Your task to perform on an android device: move an email to a new category in the gmail app Image 0: 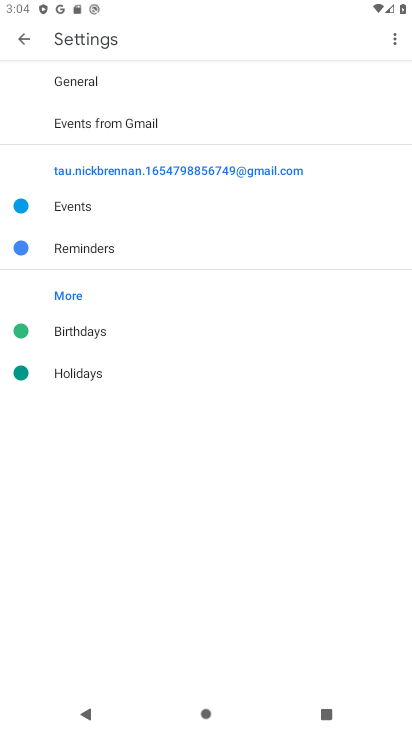
Step 0: press home button
Your task to perform on an android device: move an email to a new category in the gmail app Image 1: 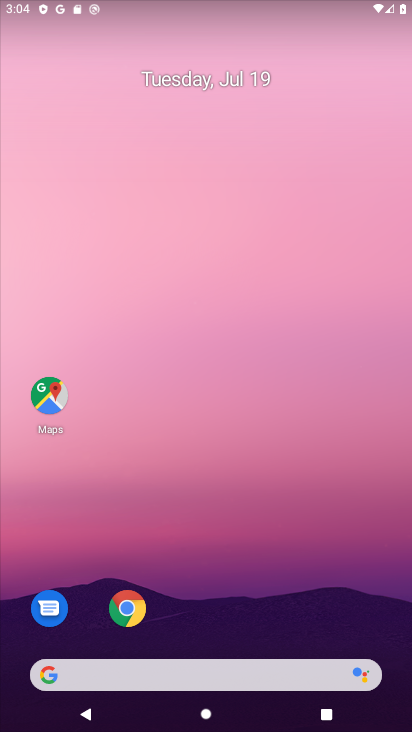
Step 1: drag from (318, 609) to (279, 119)
Your task to perform on an android device: move an email to a new category in the gmail app Image 2: 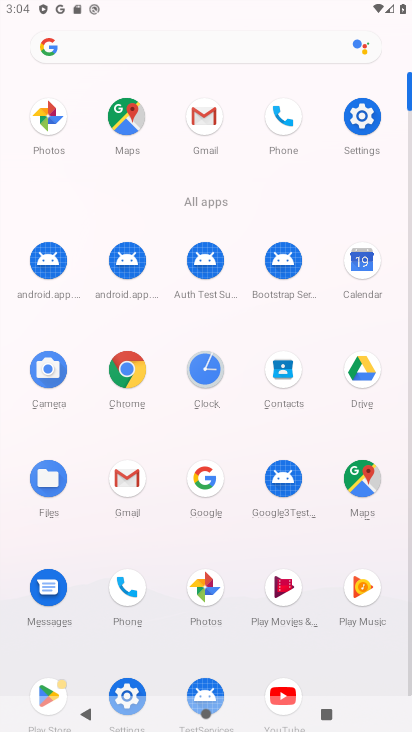
Step 2: click (207, 119)
Your task to perform on an android device: move an email to a new category in the gmail app Image 3: 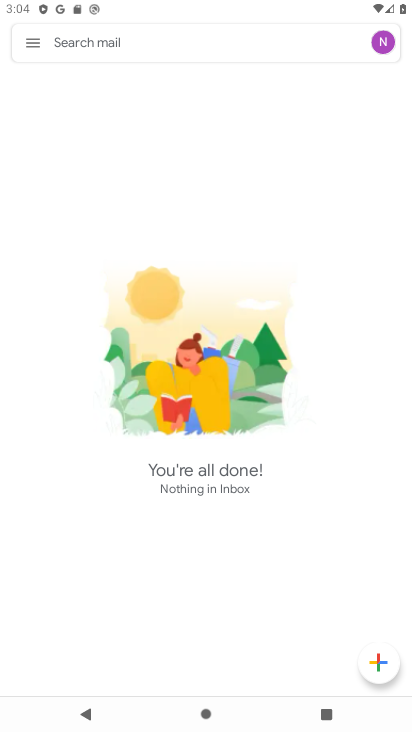
Step 3: click (21, 43)
Your task to perform on an android device: move an email to a new category in the gmail app Image 4: 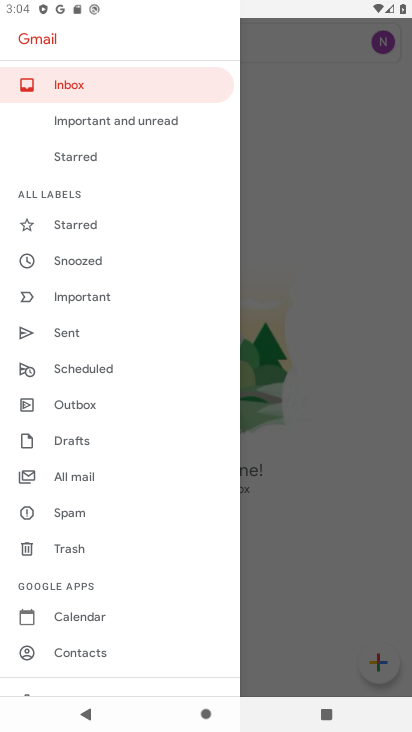
Step 4: click (133, 471)
Your task to perform on an android device: move an email to a new category in the gmail app Image 5: 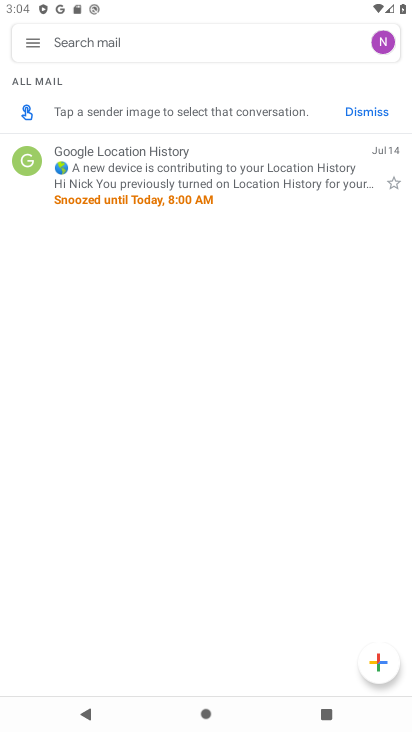
Step 5: click (219, 160)
Your task to perform on an android device: move an email to a new category in the gmail app Image 6: 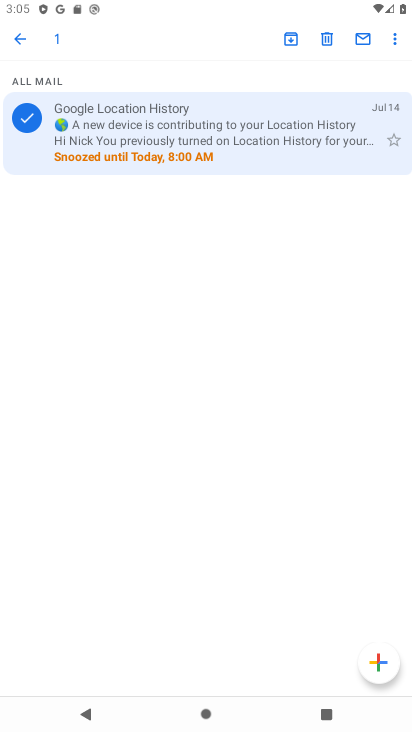
Step 6: click (400, 42)
Your task to perform on an android device: move an email to a new category in the gmail app Image 7: 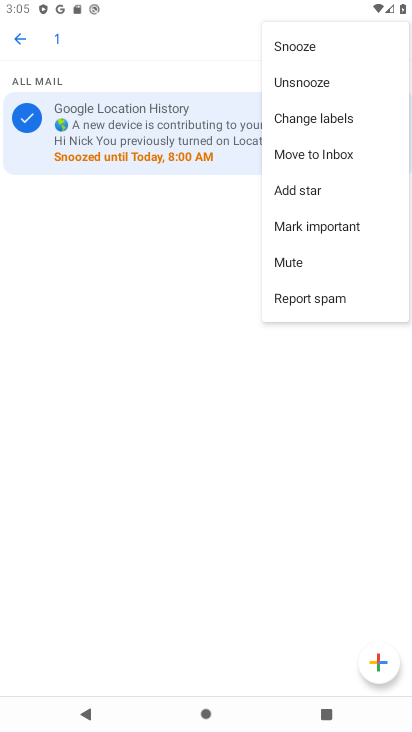
Step 7: click (354, 150)
Your task to perform on an android device: move an email to a new category in the gmail app Image 8: 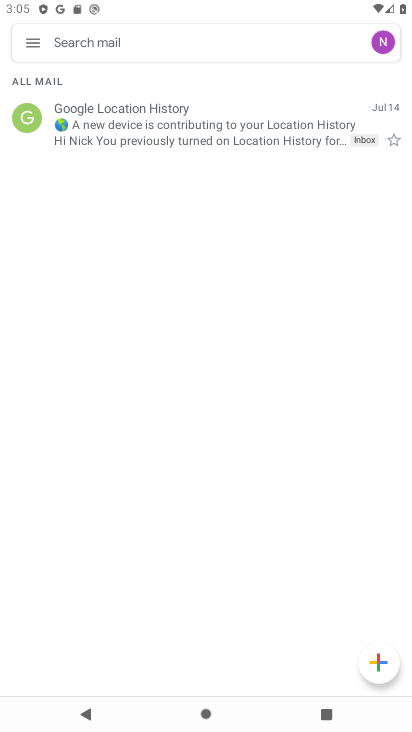
Step 8: task complete